Your task to perform on an android device: Go to Wikipedia Image 0: 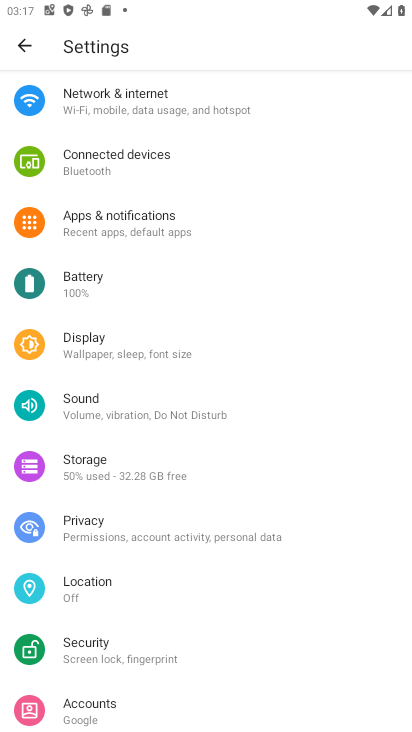
Step 0: press home button
Your task to perform on an android device: Go to Wikipedia Image 1: 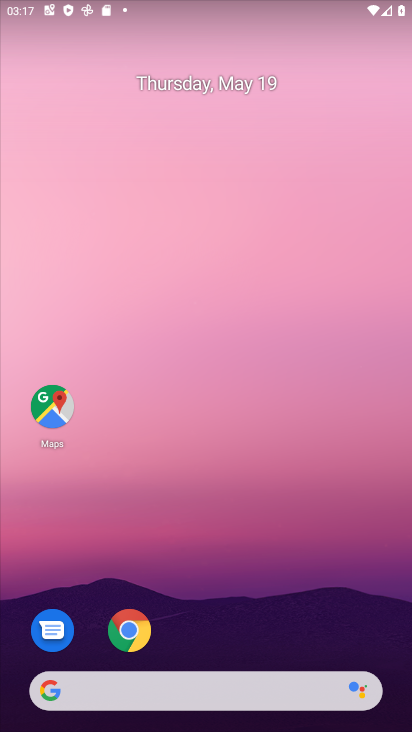
Step 1: click (132, 629)
Your task to perform on an android device: Go to Wikipedia Image 2: 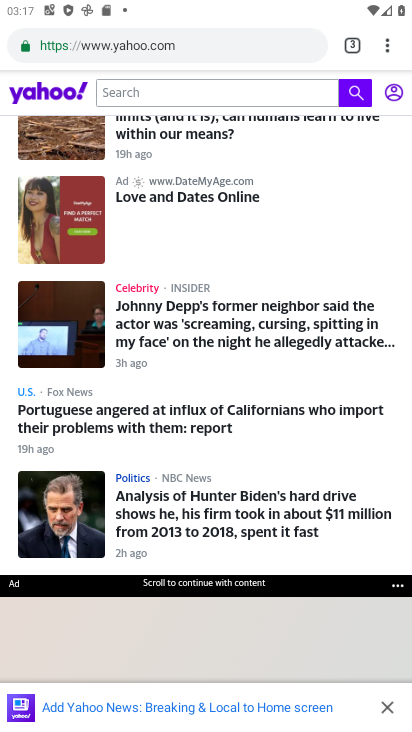
Step 2: click (164, 36)
Your task to perform on an android device: Go to Wikipedia Image 3: 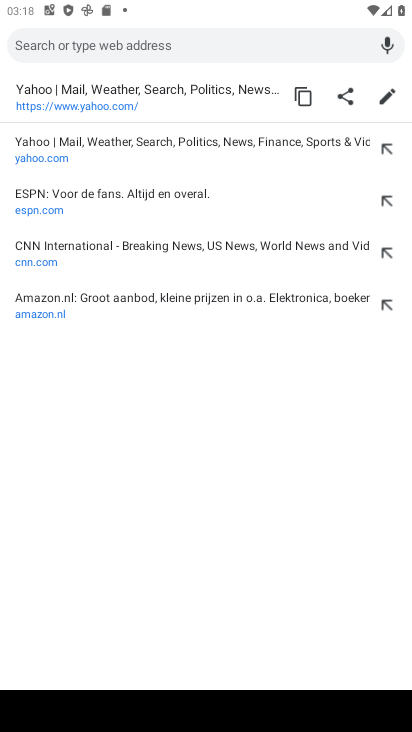
Step 3: type "wikipedia"
Your task to perform on an android device: Go to Wikipedia Image 4: 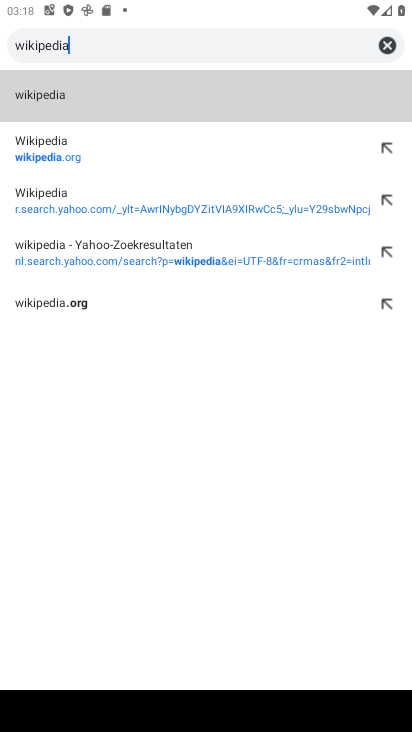
Step 4: click (57, 99)
Your task to perform on an android device: Go to Wikipedia Image 5: 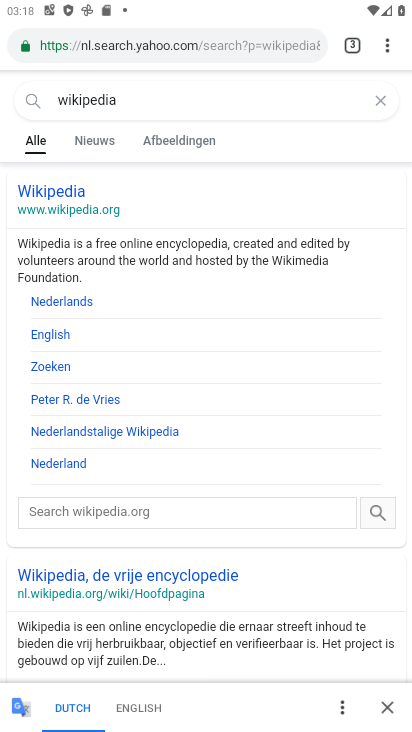
Step 5: click (48, 203)
Your task to perform on an android device: Go to Wikipedia Image 6: 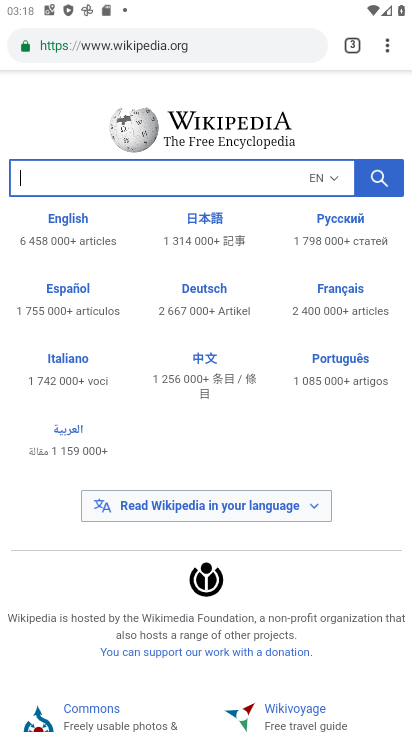
Step 6: task complete